Your task to perform on an android device: Open the web browser Image 0: 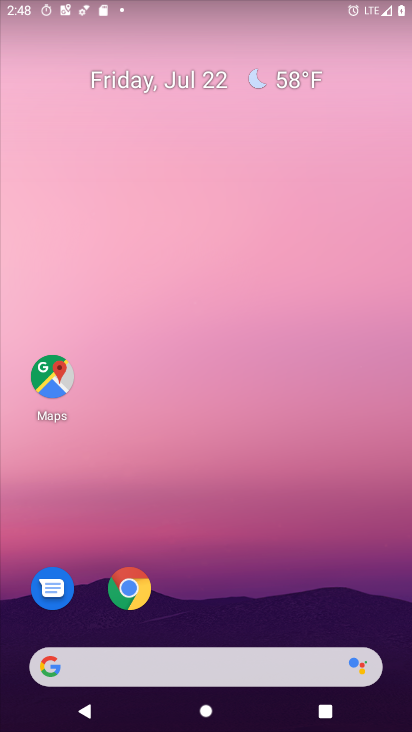
Step 0: drag from (235, 522) to (347, 199)
Your task to perform on an android device: Open the web browser Image 1: 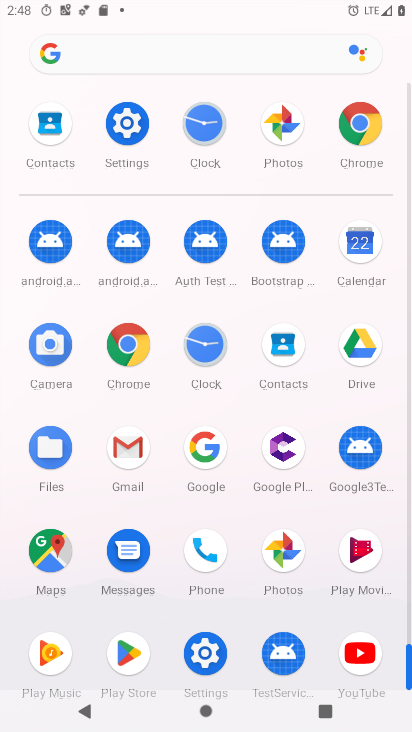
Step 1: click (135, 366)
Your task to perform on an android device: Open the web browser Image 2: 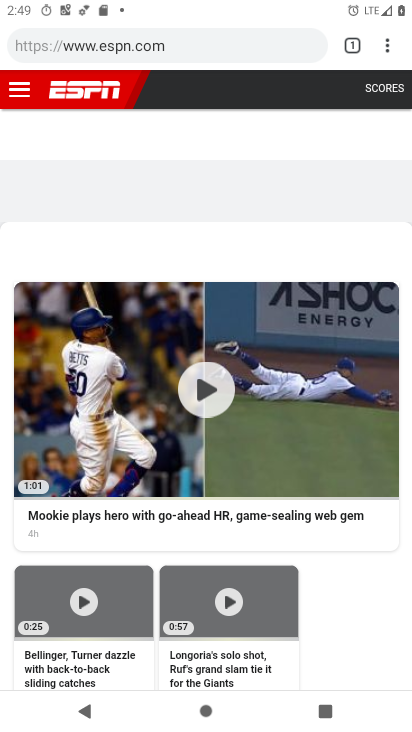
Step 2: click (83, 45)
Your task to perform on an android device: Open the web browser Image 3: 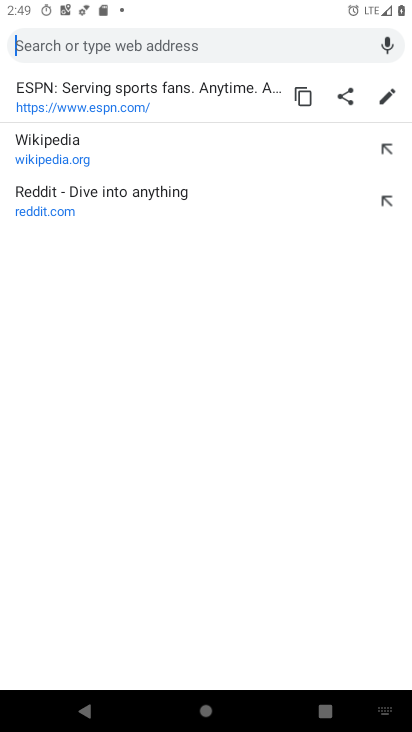
Step 3: type "web broser"
Your task to perform on an android device: Open the web browser Image 4: 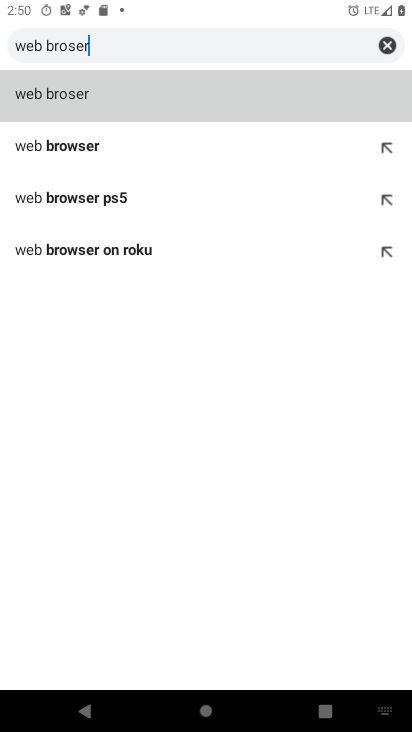
Step 4: click (77, 156)
Your task to perform on an android device: Open the web browser Image 5: 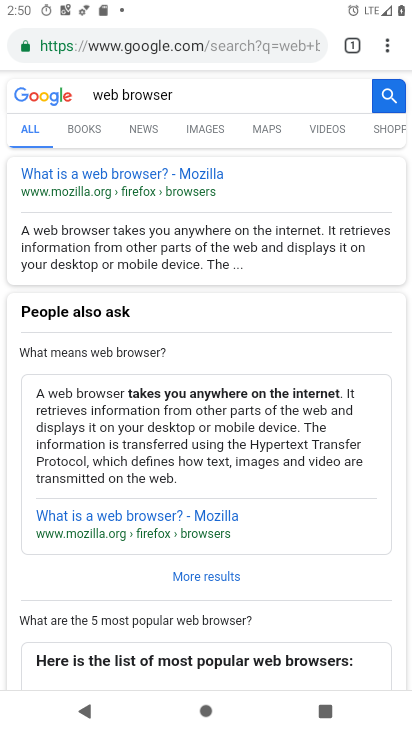
Step 5: task complete